Your task to perform on an android device: Open settings on Google Maps Image 0: 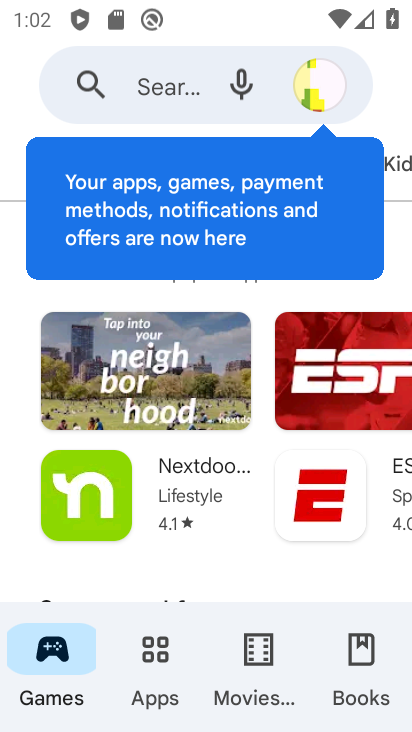
Step 0: press home button
Your task to perform on an android device: Open settings on Google Maps Image 1: 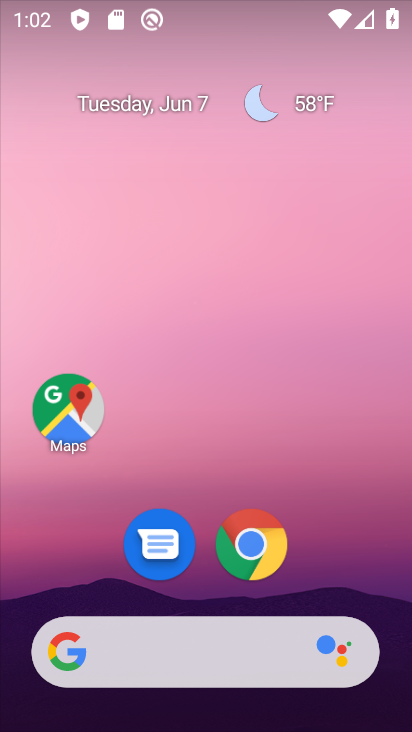
Step 1: click (66, 418)
Your task to perform on an android device: Open settings on Google Maps Image 2: 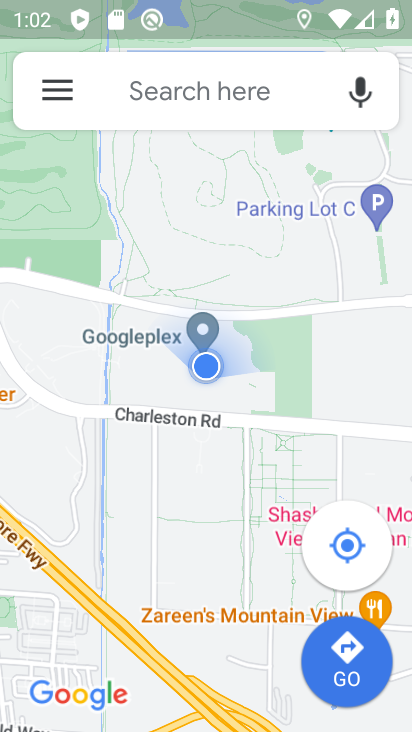
Step 2: click (67, 100)
Your task to perform on an android device: Open settings on Google Maps Image 3: 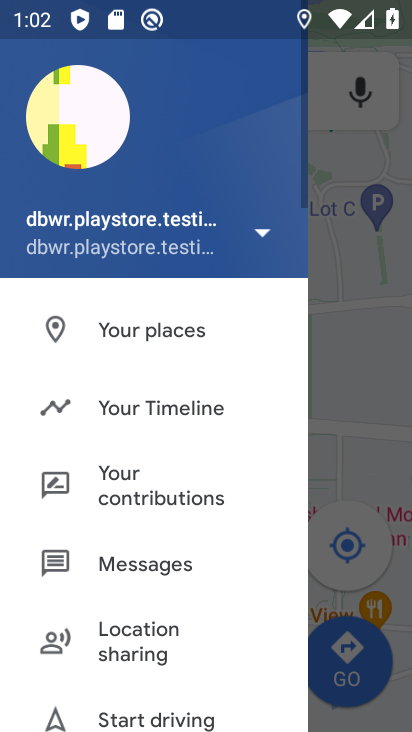
Step 3: drag from (164, 581) to (155, 189)
Your task to perform on an android device: Open settings on Google Maps Image 4: 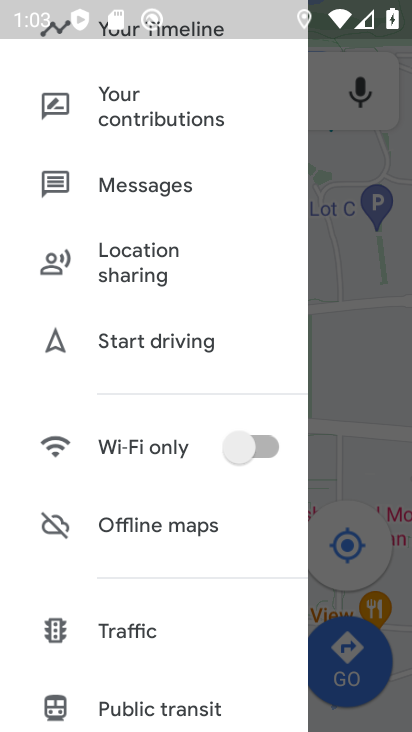
Step 4: drag from (33, 616) to (139, 129)
Your task to perform on an android device: Open settings on Google Maps Image 5: 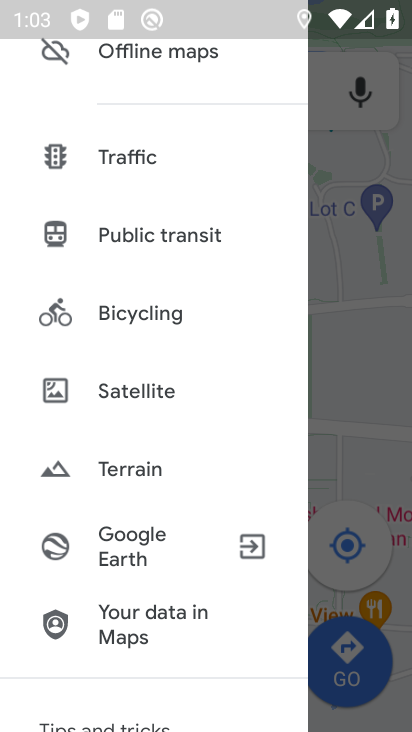
Step 5: drag from (140, 568) to (265, 40)
Your task to perform on an android device: Open settings on Google Maps Image 6: 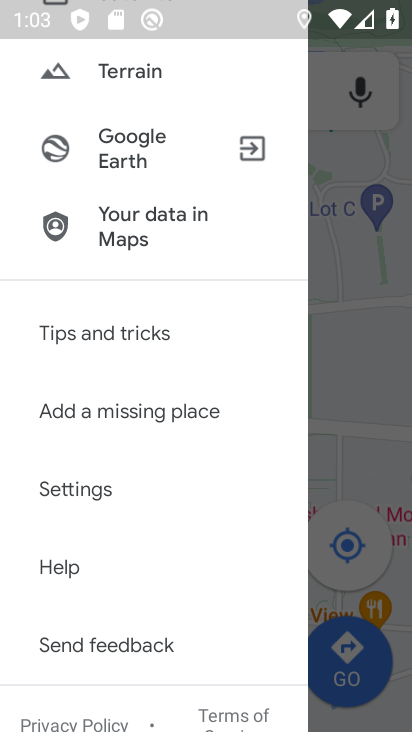
Step 6: click (70, 486)
Your task to perform on an android device: Open settings on Google Maps Image 7: 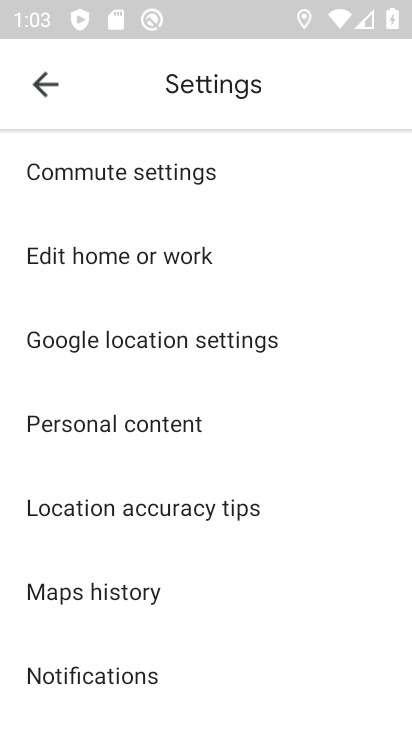
Step 7: task complete